Your task to perform on an android device: open app "AliExpress" (install if not already installed) Image 0: 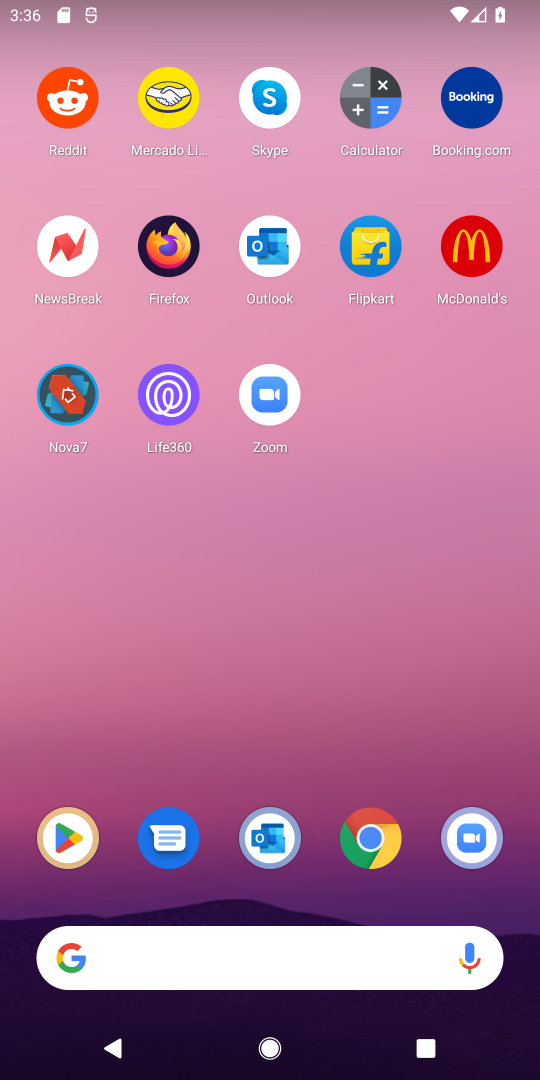
Step 0: click (100, 834)
Your task to perform on an android device: open app "AliExpress" (install if not already installed) Image 1: 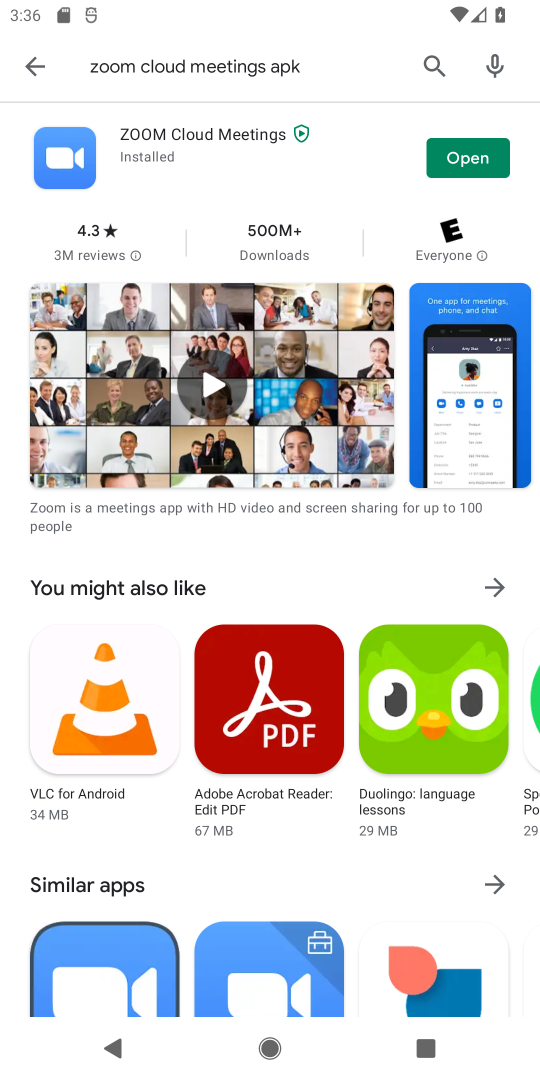
Step 1: click (434, 60)
Your task to perform on an android device: open app "AliExpress" (install if not already installed) Image 2: 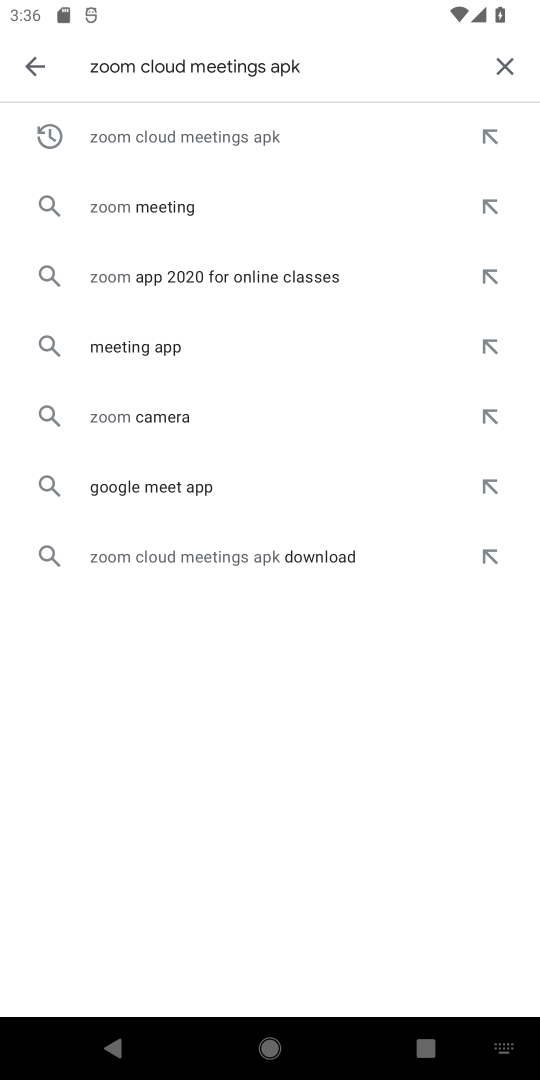
Step 2: click (509, 59)
Your task to perform on an android device: open app "AliExpress" (install if not already installed) Image 3: 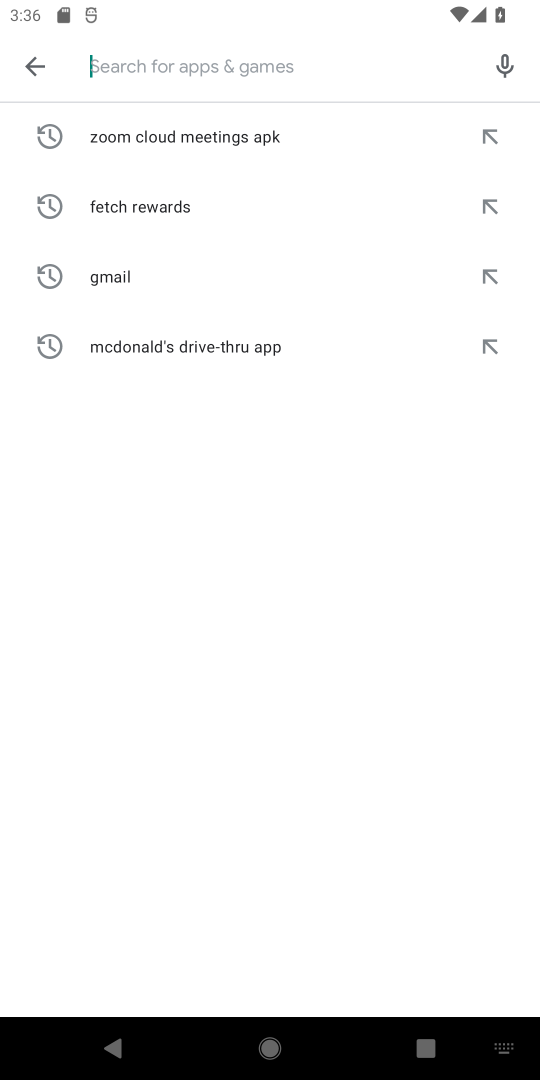
Step 3: type "AliExpress"
Your task to perform on an android device: open app "AliExpress" (install if not already installed) Image 4: 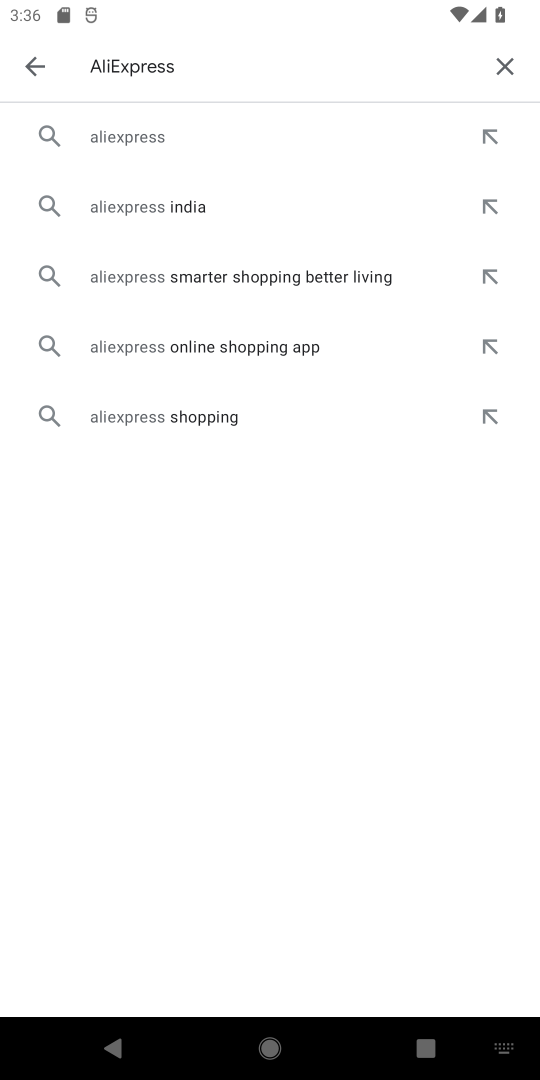
Step 4: click (229, 132)
Your task to perform on an android device: open app "AliExpress" (install if not already installed) Image 5: 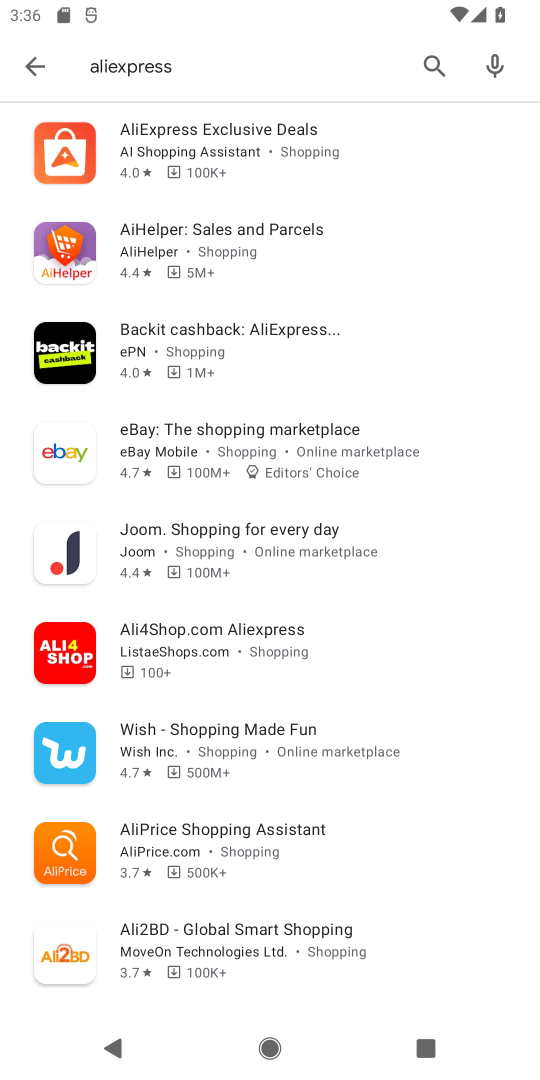
Step 5: click (223, 151)
Your task to perform on an android device: open app "AliExpress" (install if not already installed) Image 6: 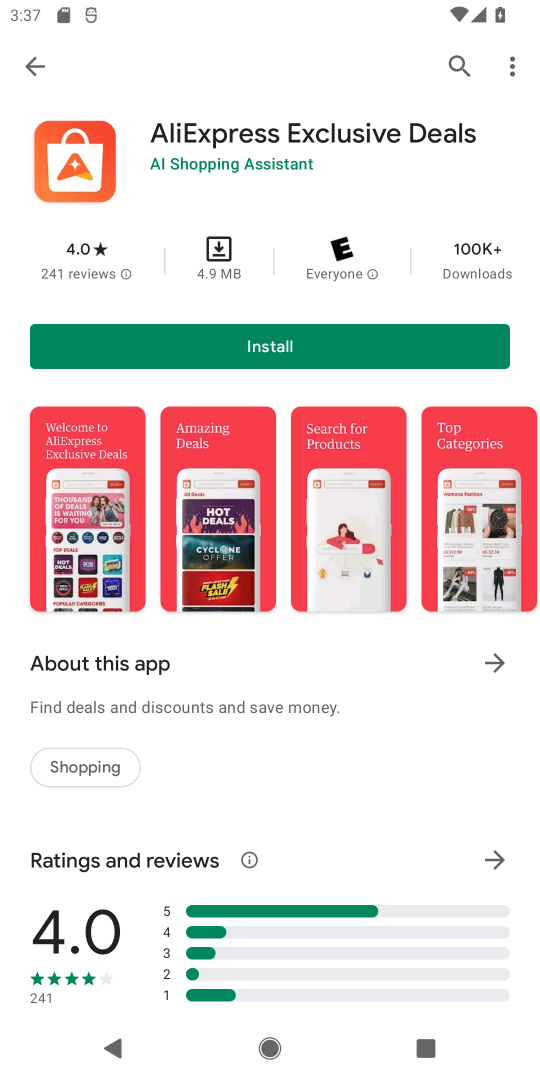
Step 6: click (126, 333)
Your task to perform on an android device: open app "AliExpress" (install if not already installed) Image 7: 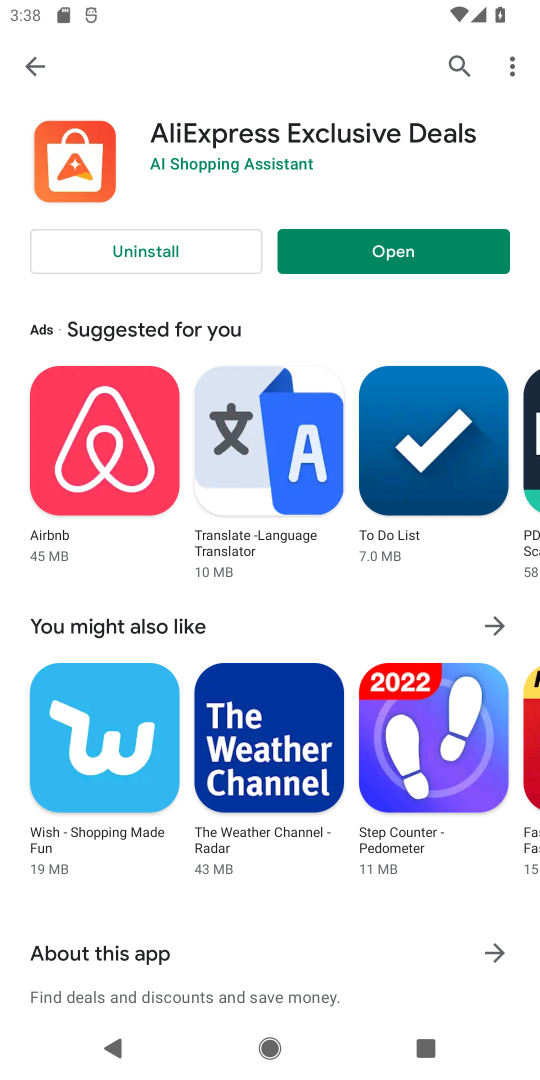
Step 7: click (328, 251)
Your task to perform on an android device: open app "AliExpress" (install if not already installed) Image 8: 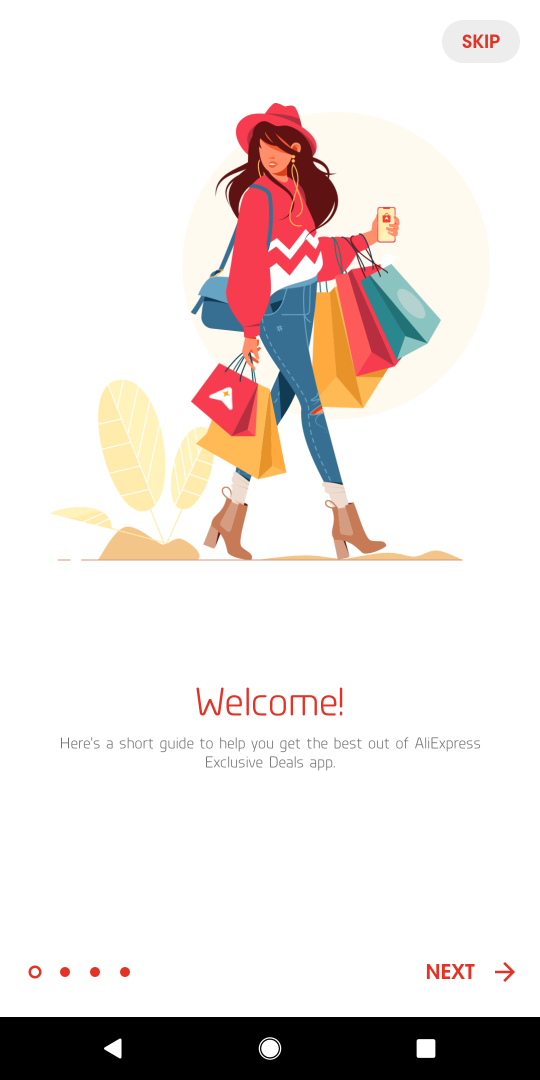
Step 8: click (460, 971)
Your task to perform on an android device: open app "AliExpress" (install if not already installed) Image 9: 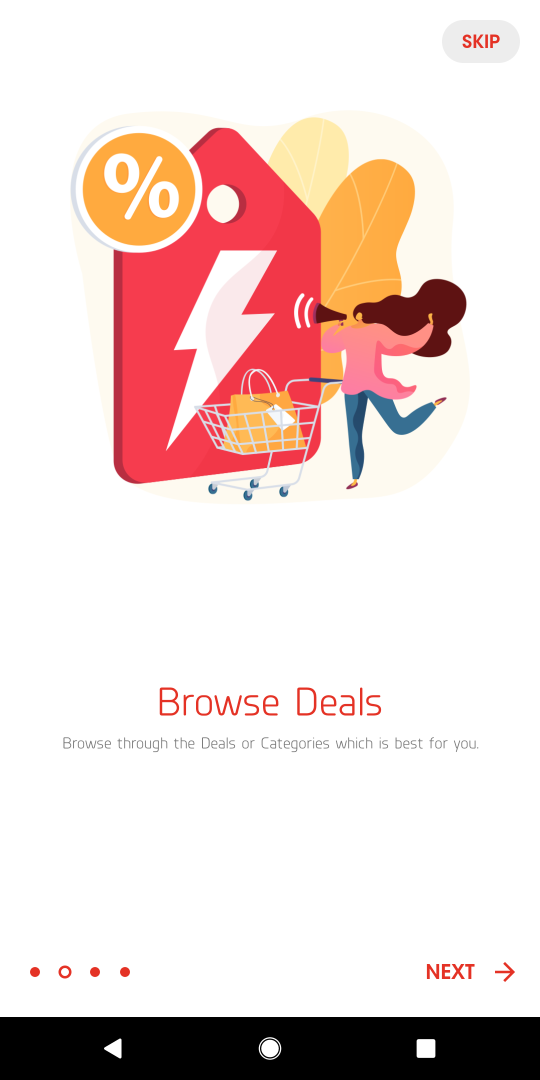
Step 9: click (465, 981)
Your task to perform on an android device: open app "AliExpress" (install if not already installed) Image 10: 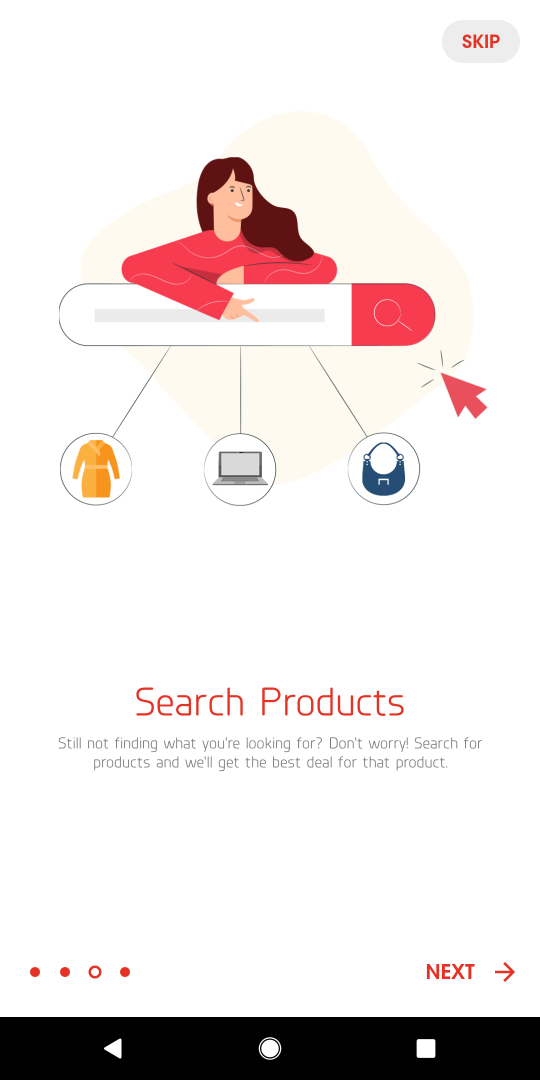
Step 10: click (465, 981)
Your task to perform on an android device: open app "AliExpress" (install if not already installed) Image 11: 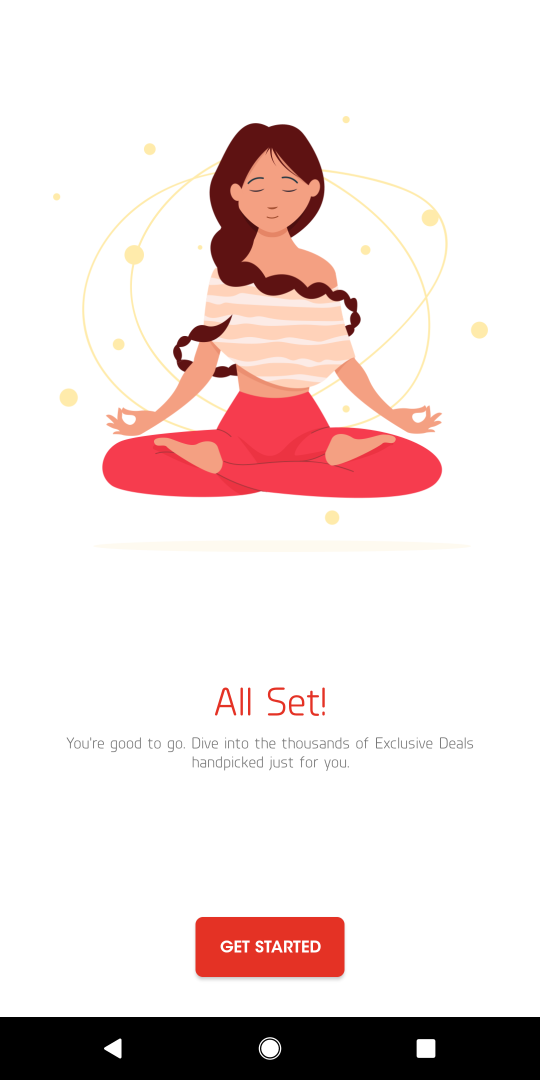
Step 11: task complete